Your task to perform on an android device: find photos in the google photos app Image 0: 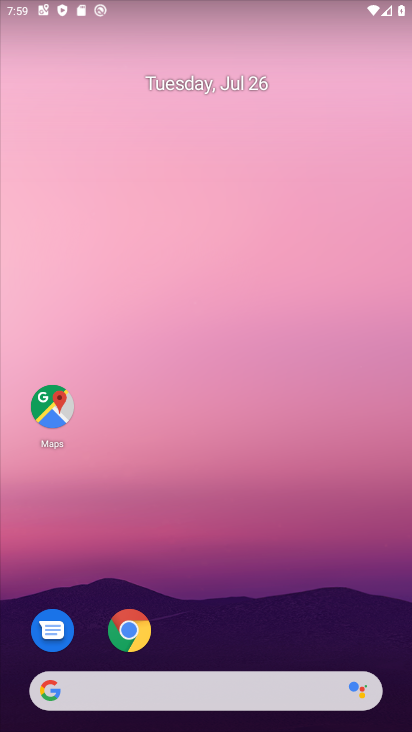
Step 0: drag from (310, 659) to (341, 162)
Your task to perform on an android device: find photos in the google photos app Image 1: 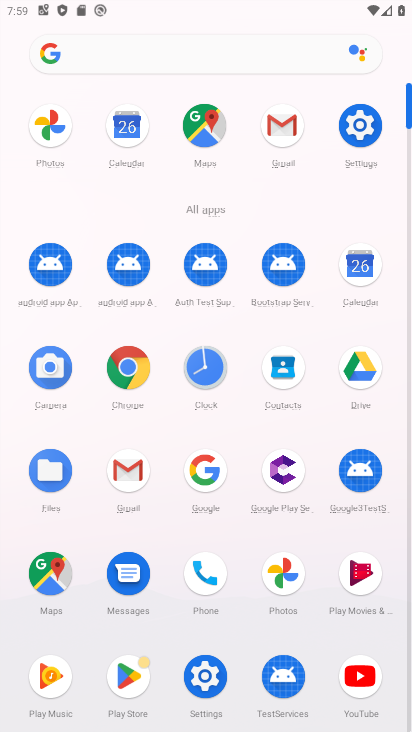
Step 1: click (54, 140)
Your task to perform on an android device: find photos in the google photos app Image 2: 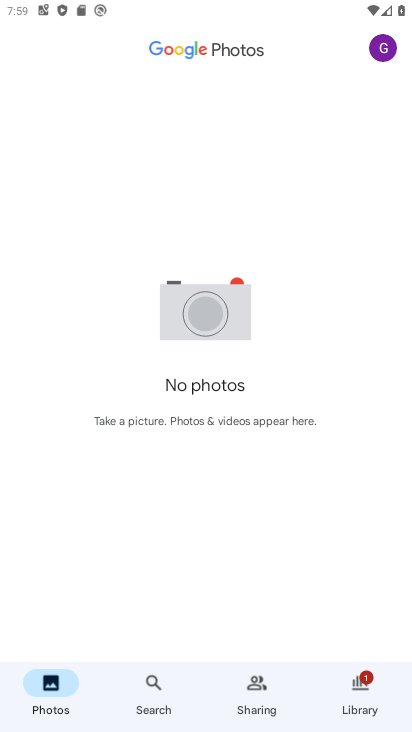
Step 2: click (327, 694)
Your task to perform on an android device: find photos in the google photos app Image 3: 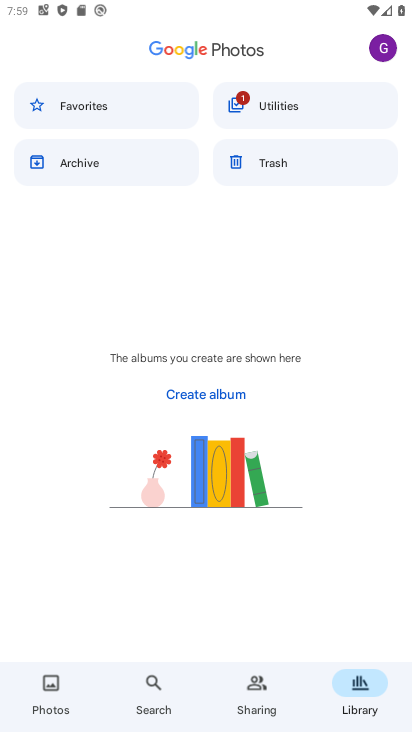
Step 3: click (149, 166)
Your task to perform on an android device: find photos in the google photos app Image 4: 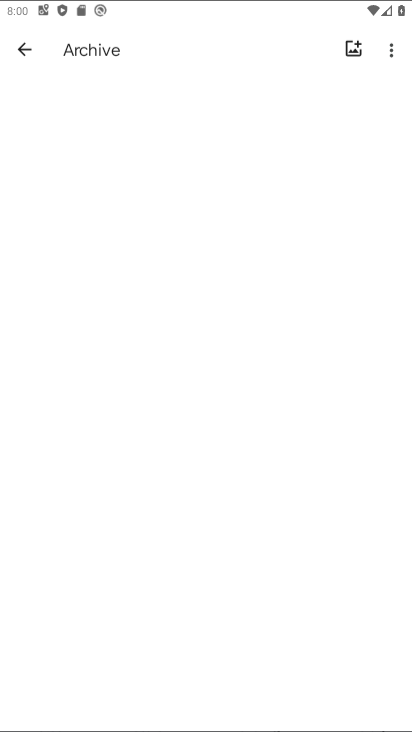
Step 4: task complete